Your task to perform on an android device: open app "Firefox Browser" (install if not already installed) and enter user name: "hashed@outlook.com" and password: "congestive" Image 0: 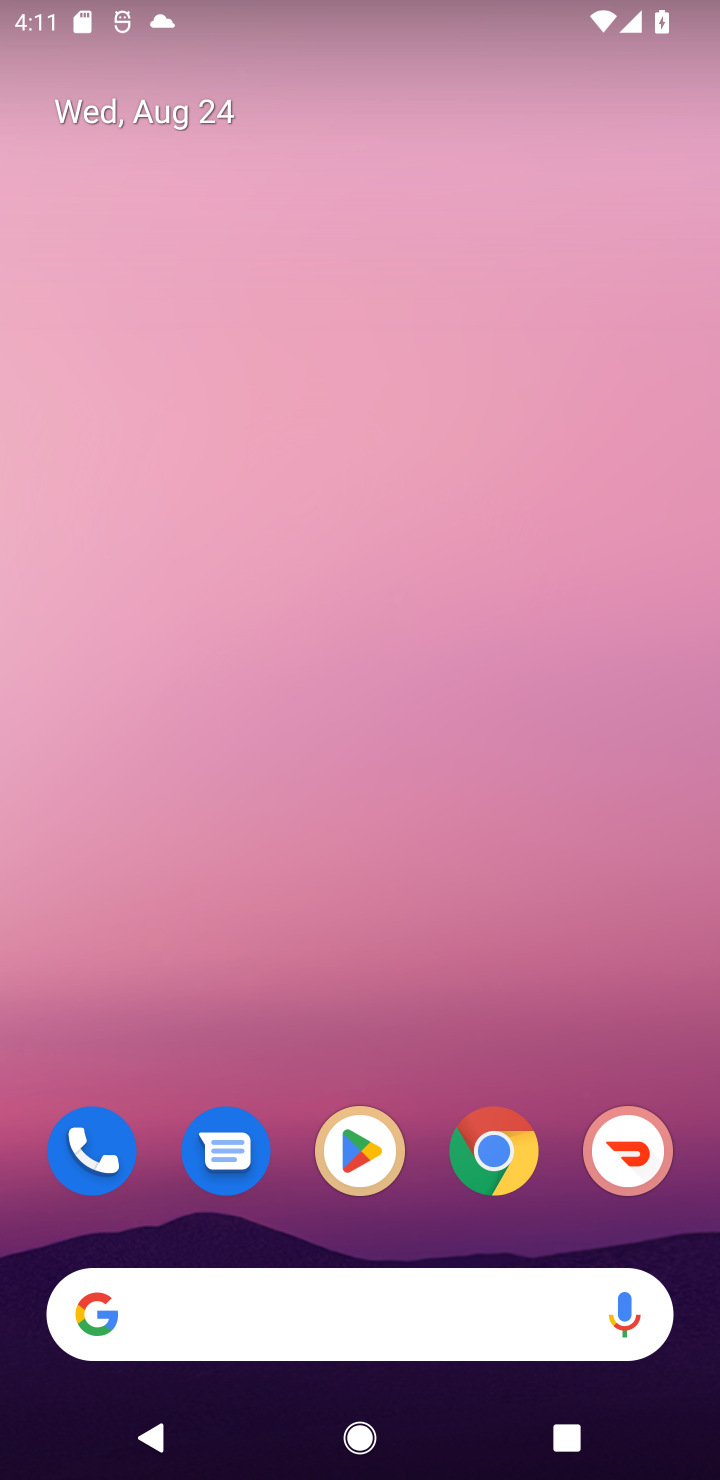
Step 0: click (357, 1121)
Your task to perform on an android device: open app "Firefox Browser" (install if not already installed) and enter user name: "hashed@outlook.com" and password: "congestive" Image 1: 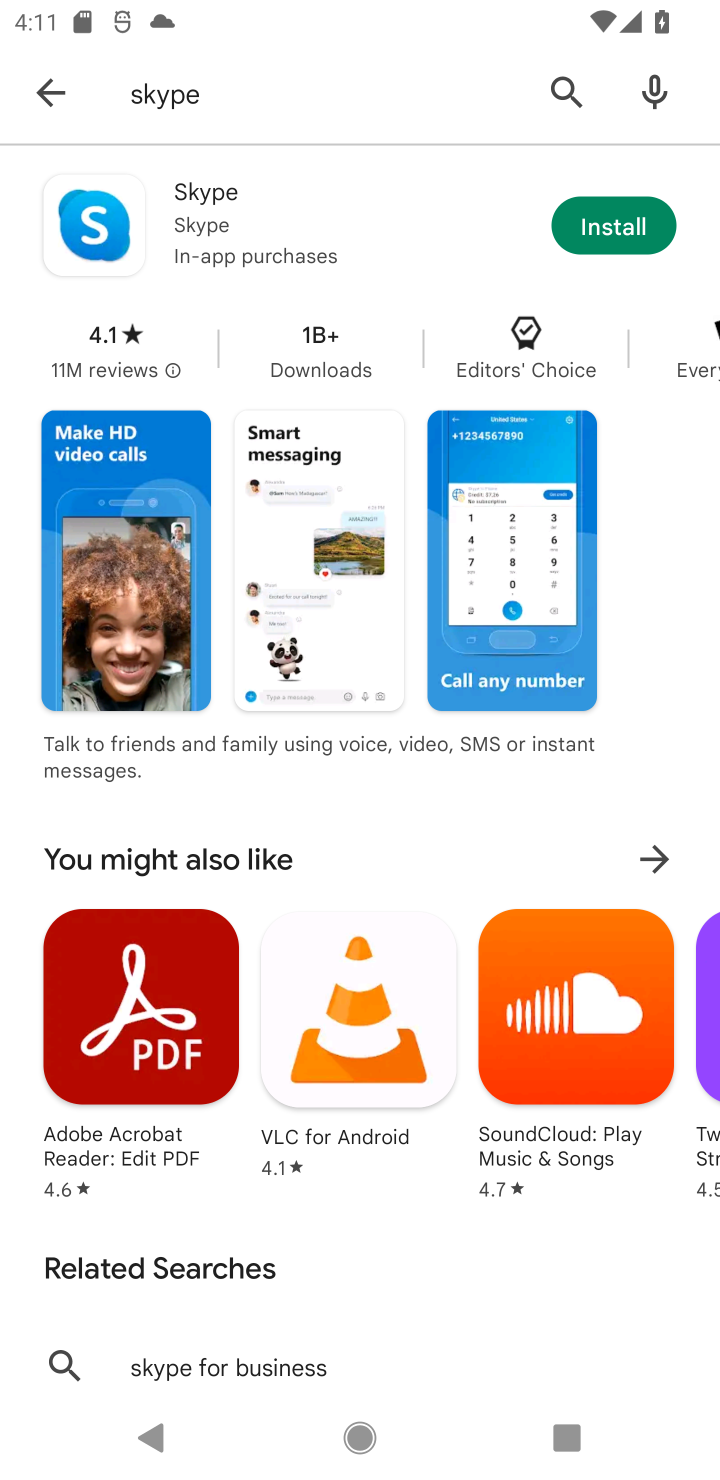
Step 1: click (41, 101)
Your task to perform on an android device: open app "Firefox Browser" (install if not already installed) and enter user name: "hashed@outlook.com" and password: "congestive" Image 2: 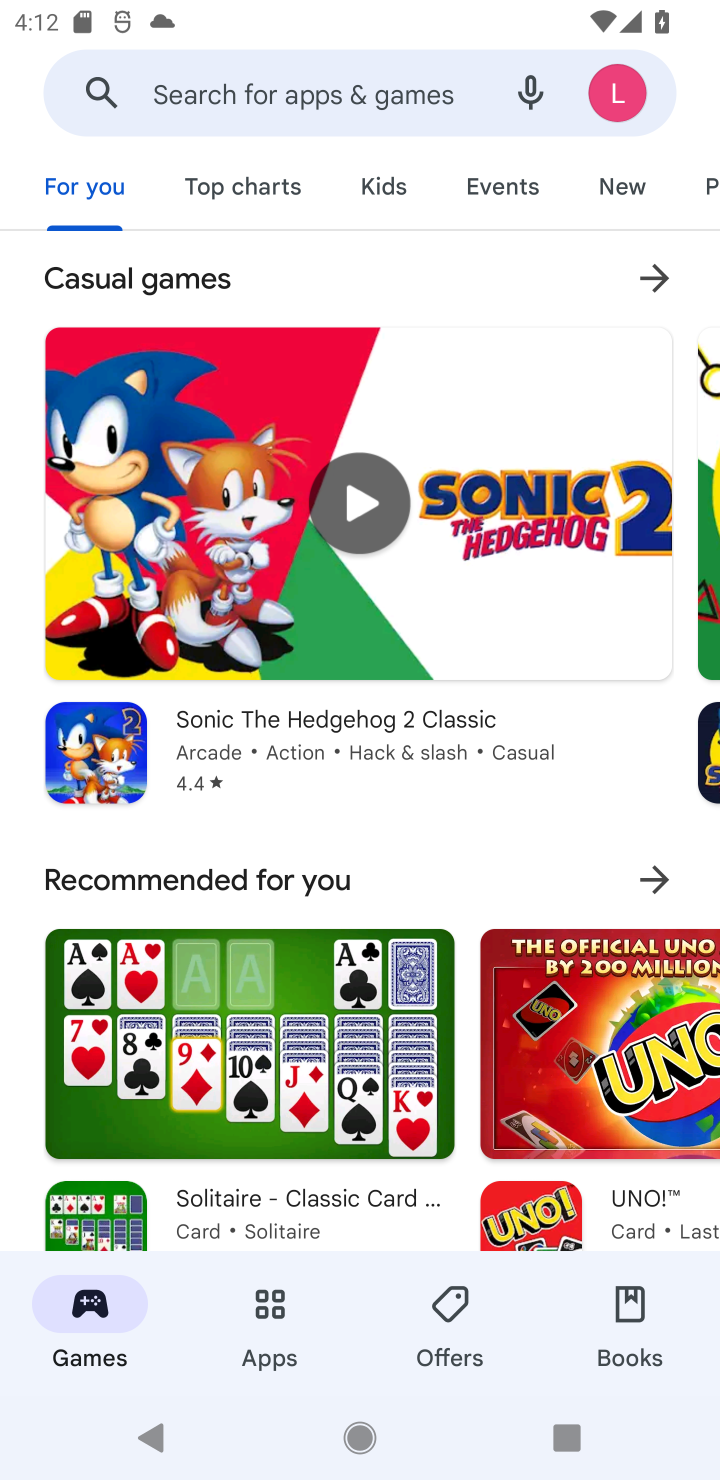
Step 2: click (235, 95)
Your task to perform on an android device: open app "Firefox Browser" (install if not already installed) and enter user name: "hashed@outlook.com" and password: "congestive" Image 3: 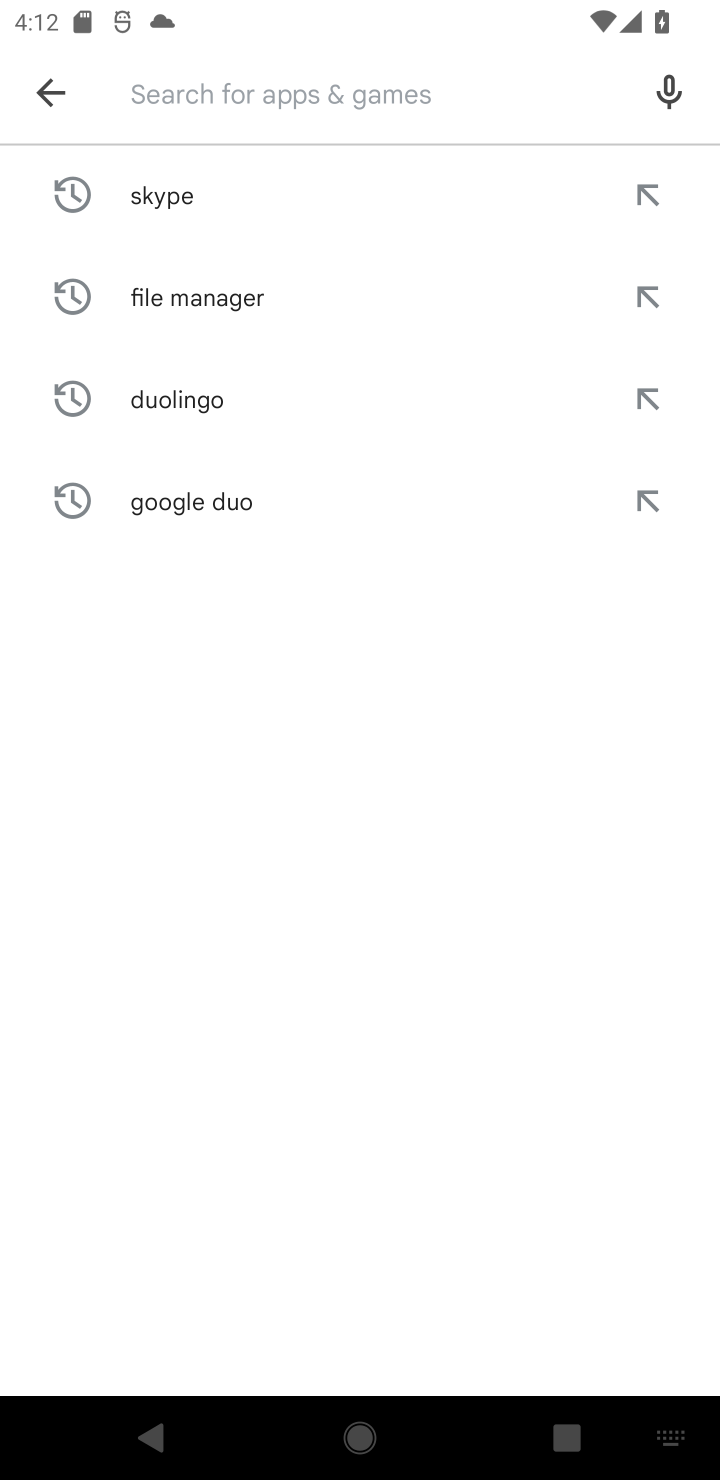
Step 3: type "Firefox Browser"
Your task to perform on an android device: open app "Firefox Browser" (install if not already installed) and enter user name: "hashed@outlook.com" and password: "congestive" Image 4: 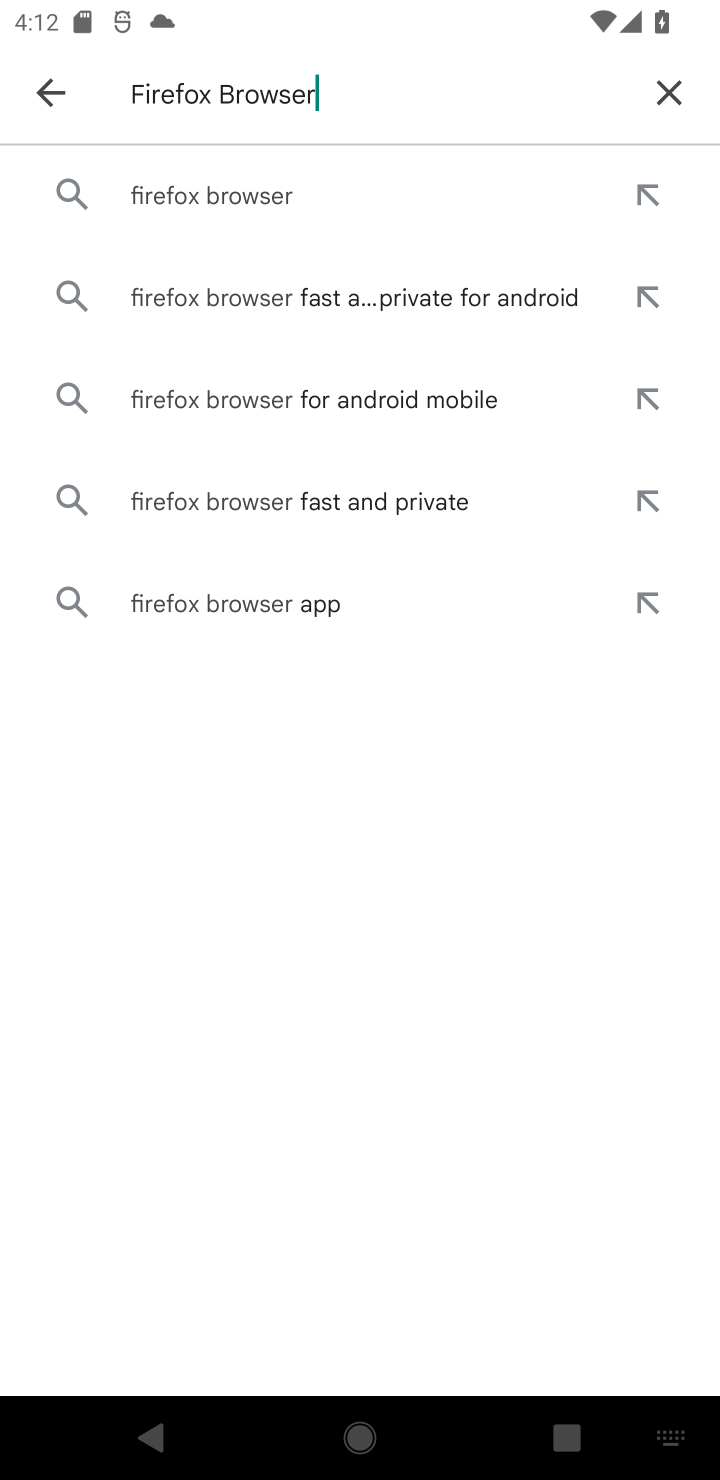
Step 4: click (214, 182)
Your task to perform on an android device: open app "Firefox Browser" (install if not already installed) and enter user name: "hashed@outlook.com" and password: "congestive" Image 5: 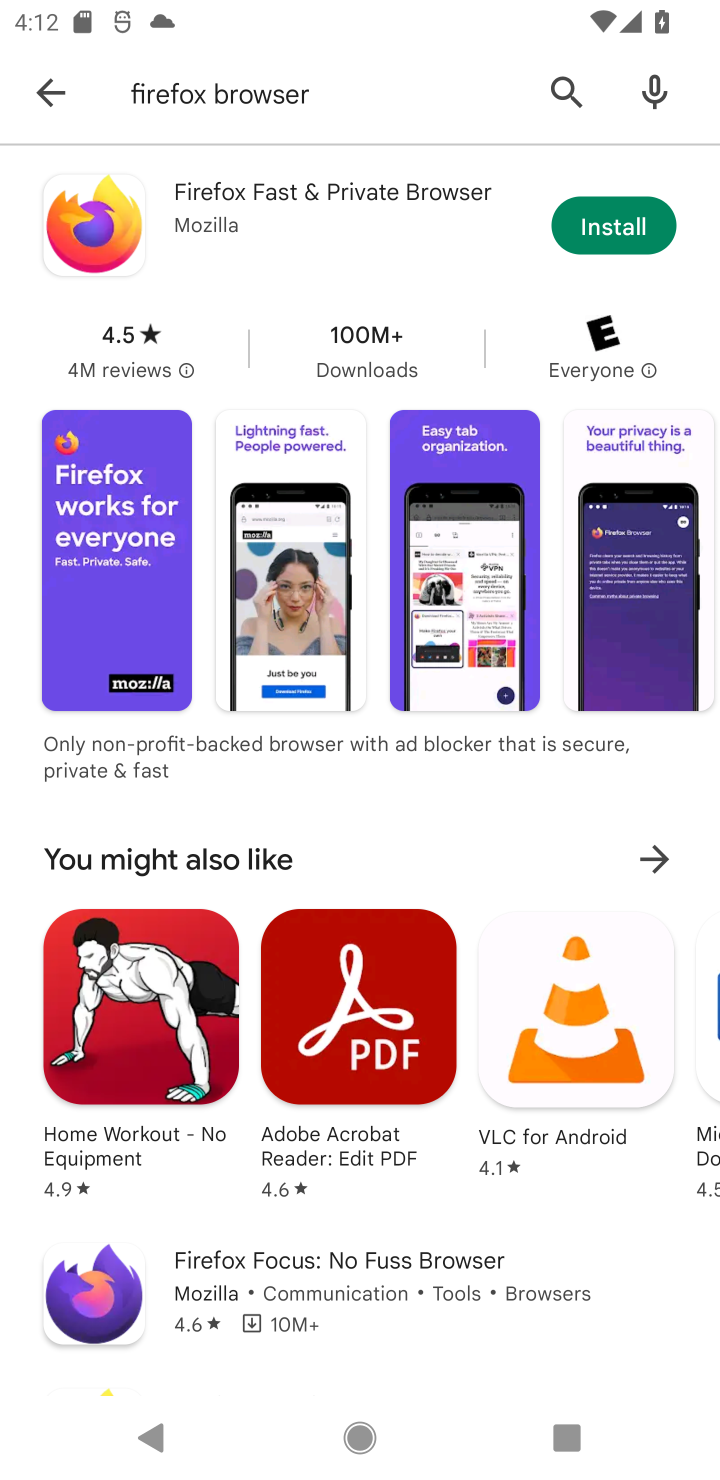
Step 5: task complete